Your task to perform on an android device: turn off data saver in the chrome app Image 0: 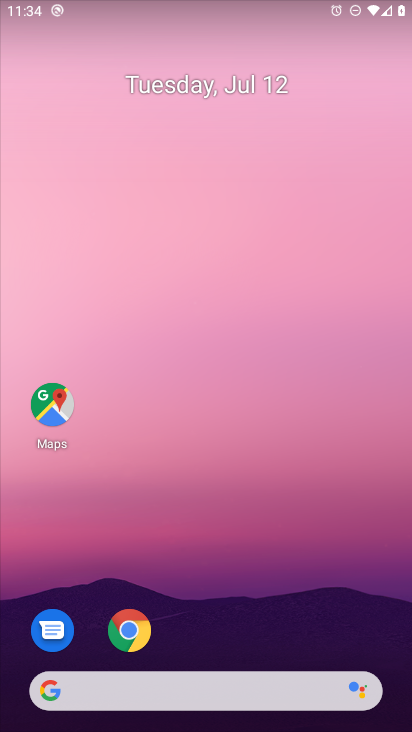
Step 0: press home button
Your task to perform on an android device: turn off data saver in the chrome app Image 1: 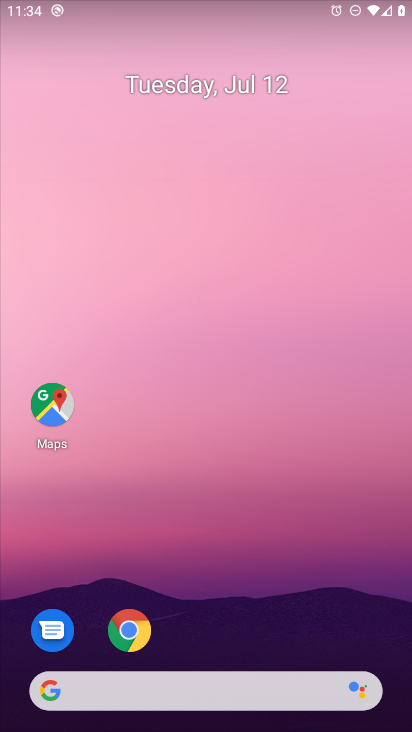
Step 1: click (126, 630)
Your task to perform on an android device: turn off data saver in the chrome app Image 2: 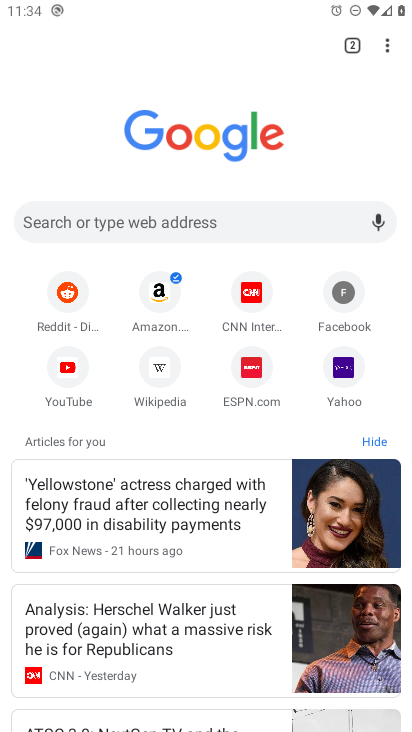
Step 2: drag from (390, 48) to (225, 387)
Your task to perform on an android device: turn off data saver in the chrome app Image 3: 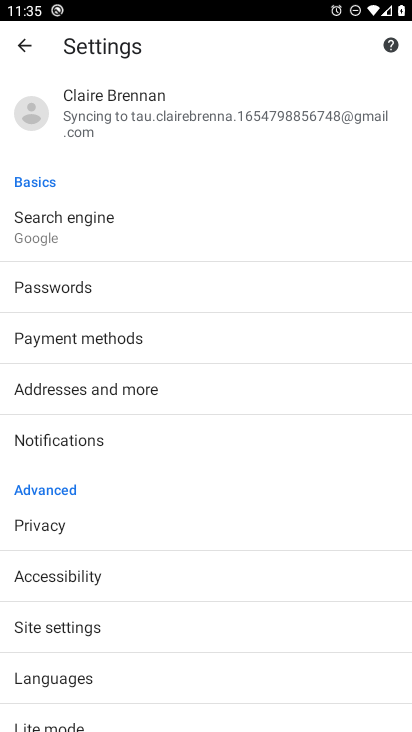
Step 3: drag from (131, 651) to (167, 312)
Your task to perform on an android device: turn off data saver in the chrome app Image 4: 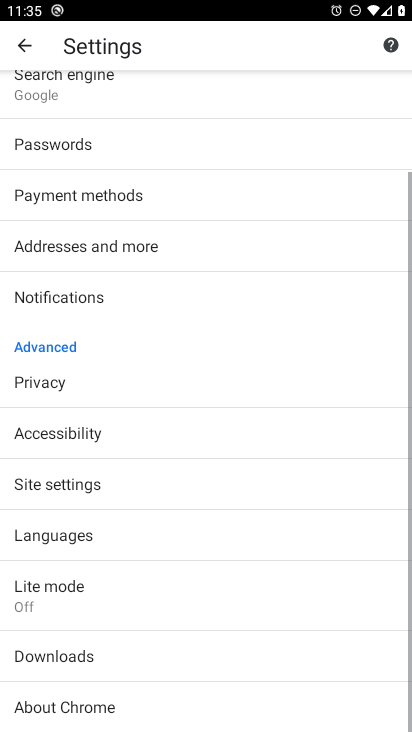
Step 4: click (78, 581)
Your task to perform on an android device: turn off data saver in the chrome app Image 5: 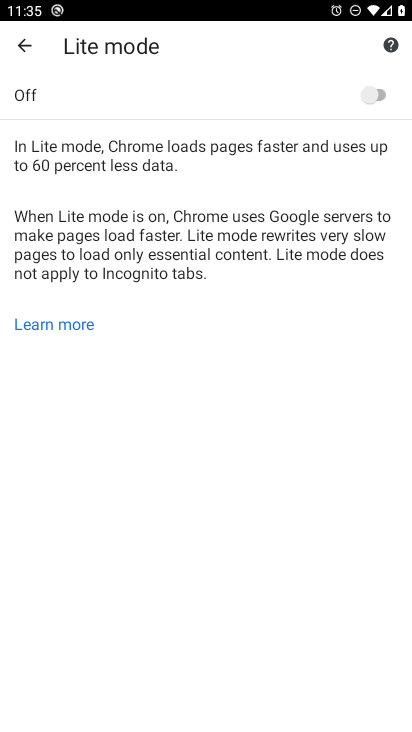
Step 5: task complete